Your task to perform on an android device: choose inbox layout in the gmail app Image 0: 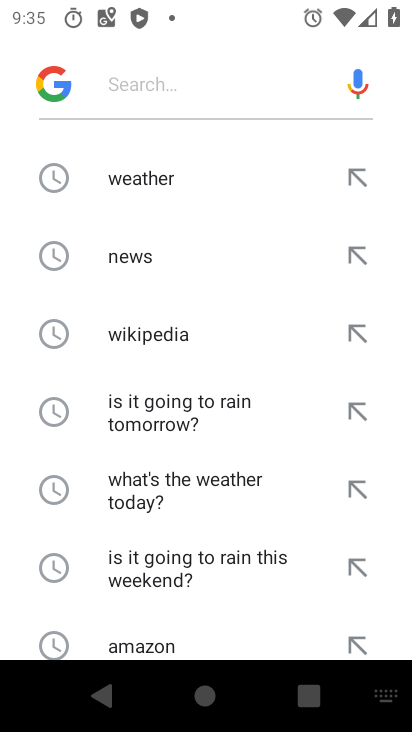
Step 0: press home button
Your task to perform on an android device: choose inbox layout in the gmail app Image 1: 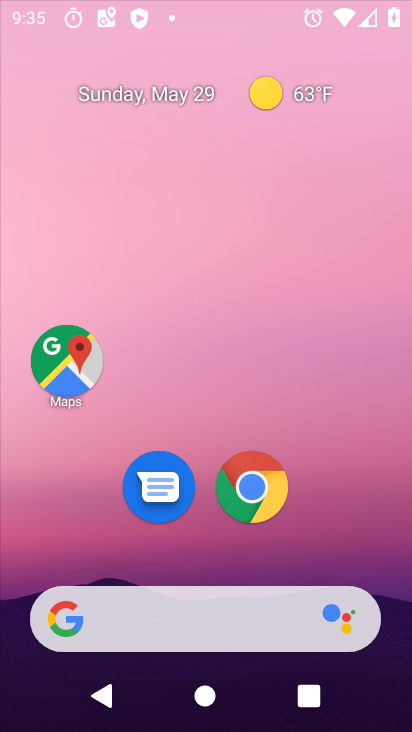
Step 1: drag from (190, 690) to (257, 251)
Your task to perform on an android device: choose inbox layout in the gmail app Image 2: 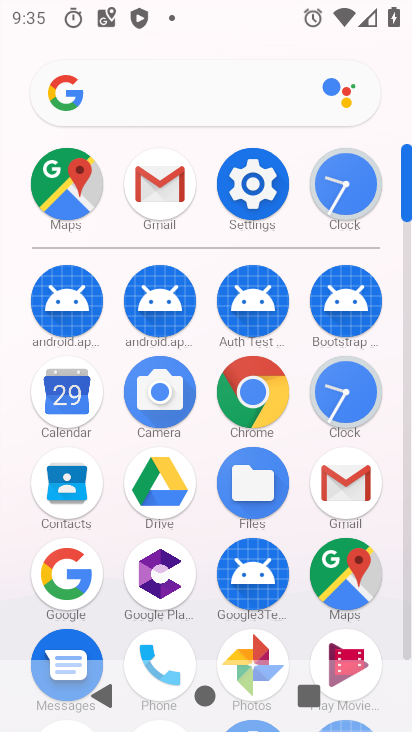
Step 2: click (338, 491)
Your task to perform on an android device: choose inbox layout in the gmail app Image 3: 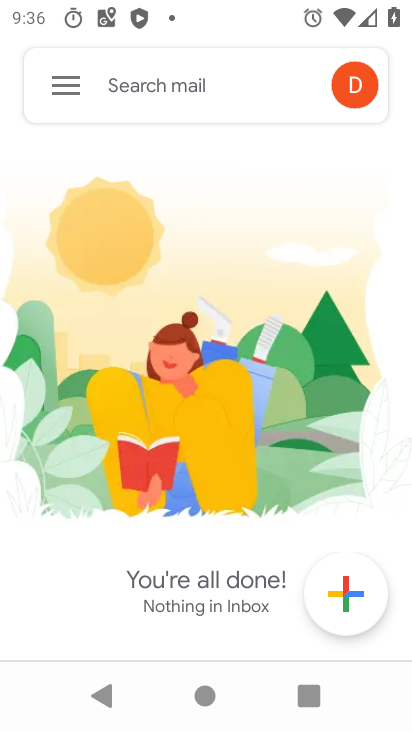
Step 3: click (55, 77)
Your task to perform on an android device: choose inbox layout in the gmail app Image 4: 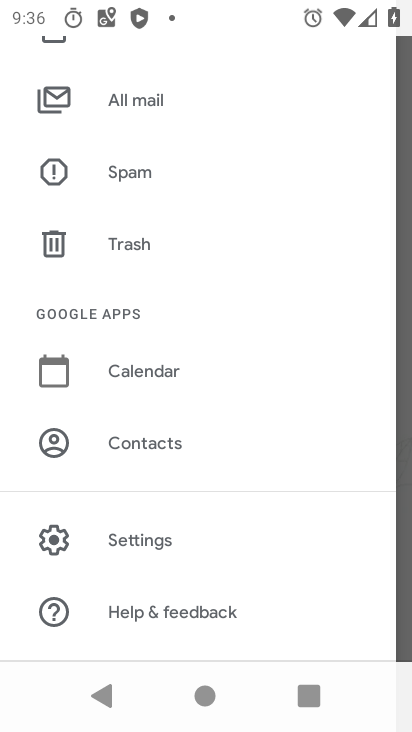
Step 4: click (151, 536)
Your task to perform on an android device: choose inbox layout in the gmail app Image 5: 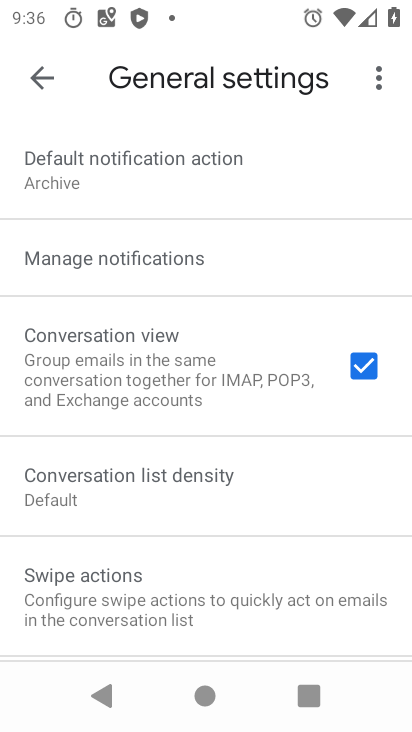
Step 5: task complete